Your task to perform on an android device: check android version Image 0: 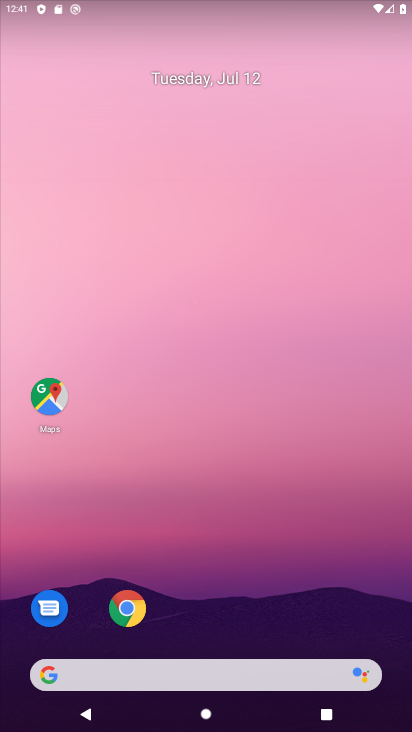
Step 0: drag from (325, 618) to (211, 144)
Your task to perform on an android device: check android version Image 1: 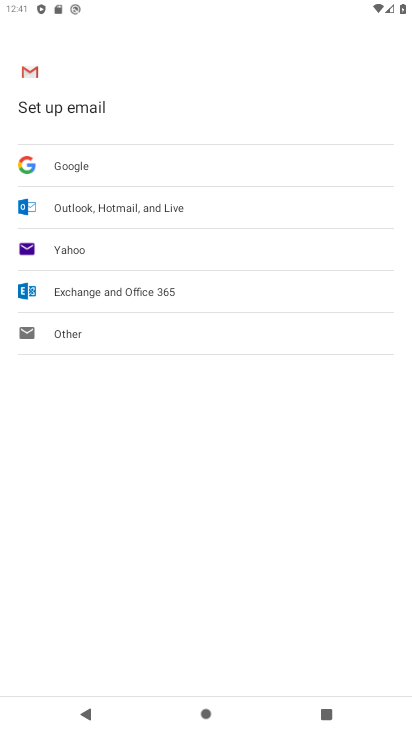
Step 1: press home button
Your task to perform on an android device: check android version Image 2: 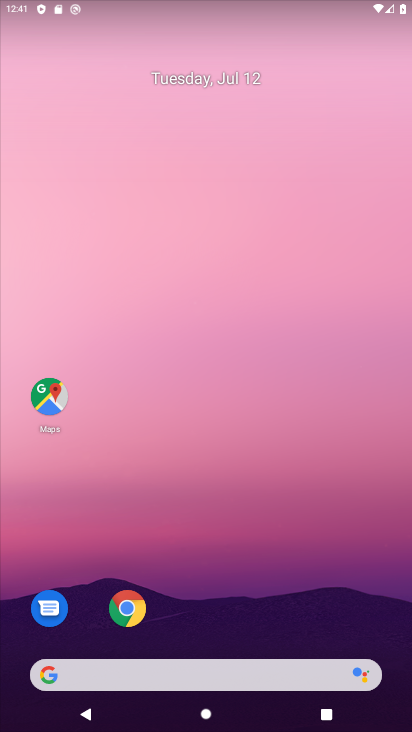
Step 2: drag from (354, 622) to (257, 132)
Your task to perform on an android device: check android version Image 3: 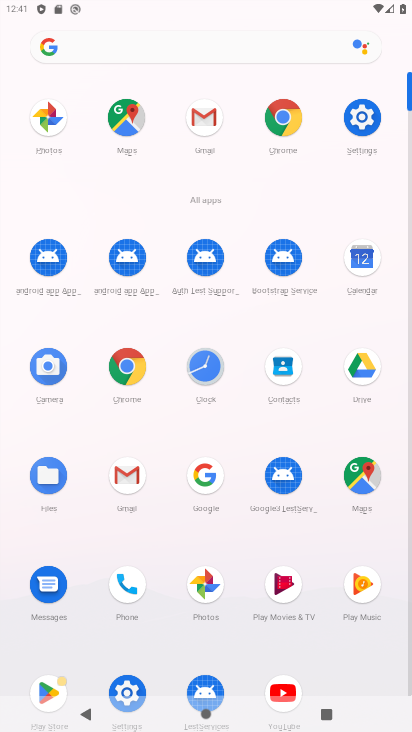
Step 3: click (365, 115)
Your task to perform on an android device: check android version Image 4: 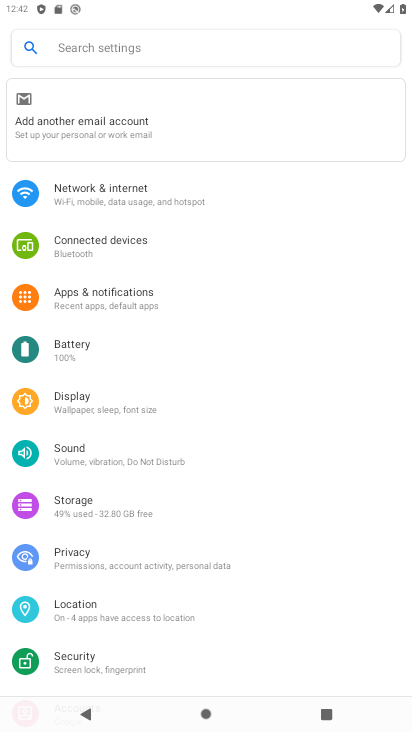
Step 4: drag from (363, 668) to (252, 84)
Your task to perform on an android device: check android version Image 5: 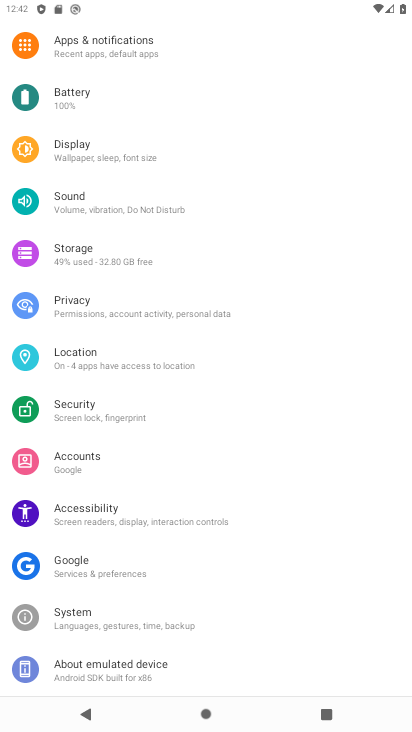
Step 5: click (229, 673)
Your task to perform on an android device: check android version Image 6: 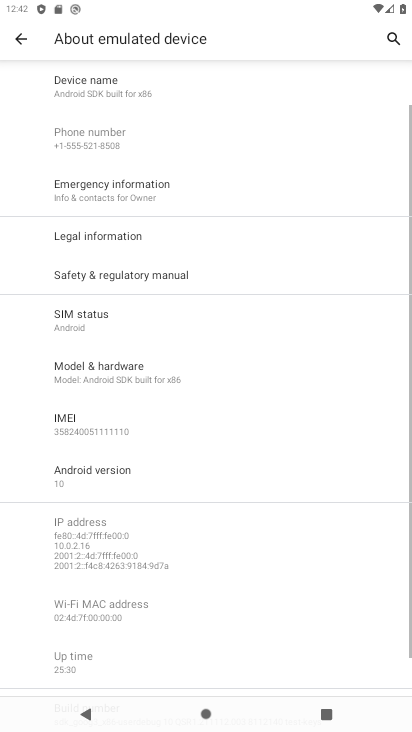
Step 6: click (182, 480)
Your task to perform on an android device: check android version Image 7: 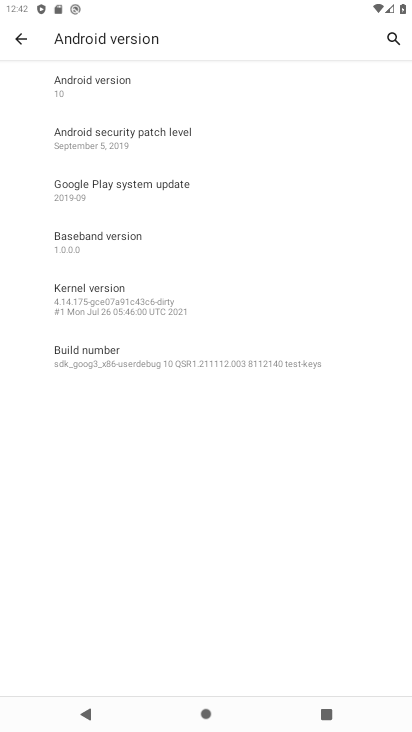
Step 7: task complete